Your task to perform on an android device: Go to accessibility settings Image 0: 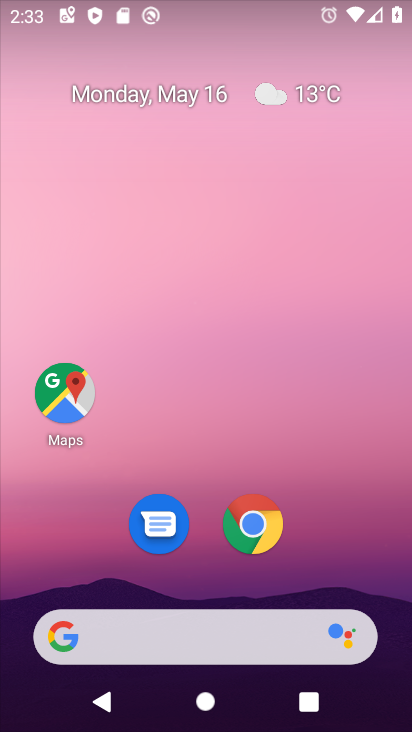
Step 0: drag from (336, 500) to (267, 52)
Your task to perform on an android device: Go to accessibility settings Image 1: 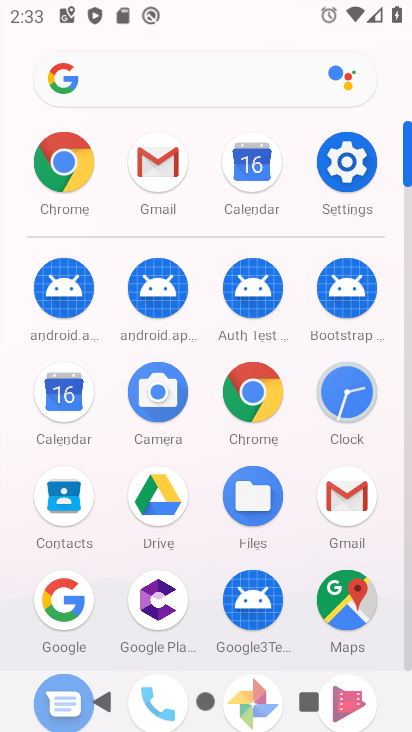
Step 1: click (334, 163)
Your task to perform on an android device: Go to accessibility settings Image 2: 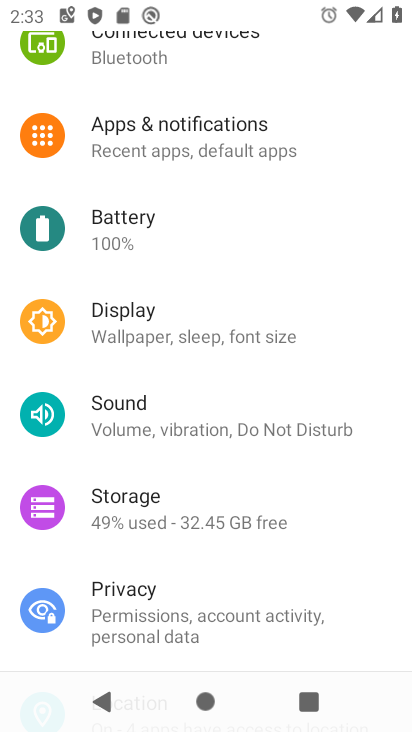
Step 2: drag from (190, 494) to (178, 152)
Your task to perform on an android device: Go to accessibility settings Image 3: 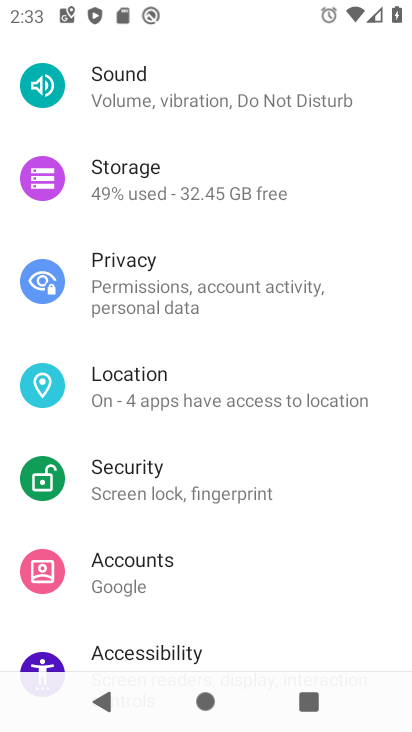
Step 3: drag from (221, 600) to (189, 317)
Your task to perform on an android device: Go to accessibility settings Image 4: 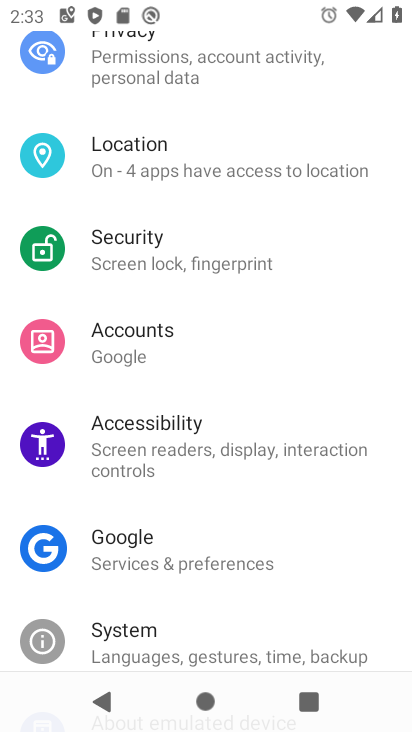
Step 4: click (218, 442)
Your task to perform on an android device: Go to accessibility settings Image 5: 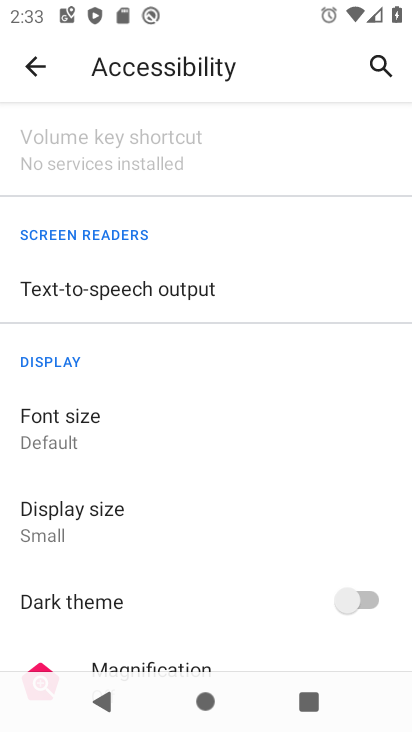
Step 5: task complete